Your task to perform on an android device: open app "Duolingo: language lessons" Image 0: 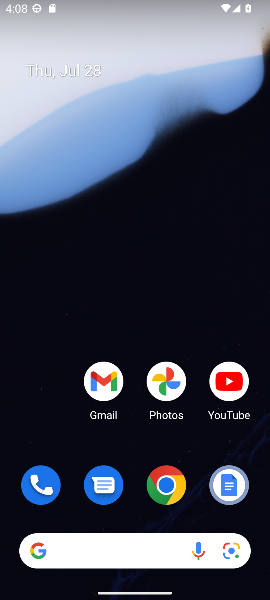
Step 0: drag from (144, 503) to (146, 153)
Your task to perform on an android device: open app "Duolingo: language lessons" Image 1: 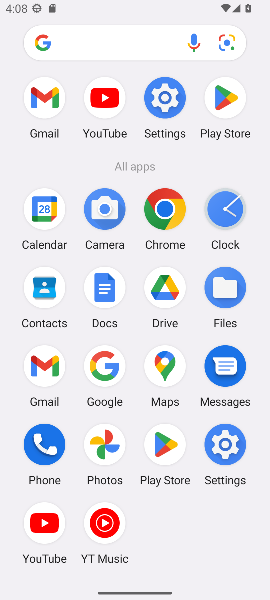
Step 1: click (169, 442)
Your task to perform on an android device: open app "Duolingo: language lessons" Image 2: 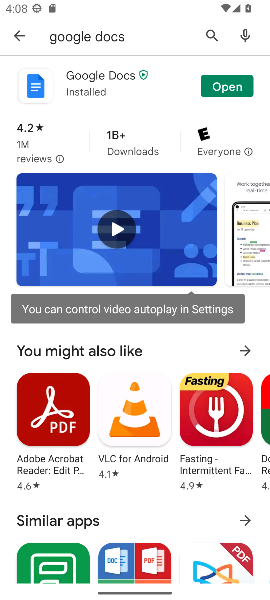
Step 2: click (15, 29)
Your task to perform on an android device: open app "Duolingo: language lessons" Image 3: 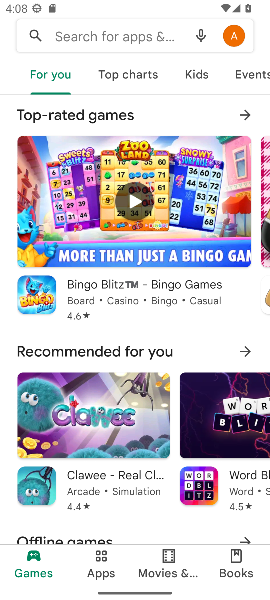
Step 3: click (87, 37)
Your task to perform on an android device: open app "Duolingo: language lessons" Image 4: 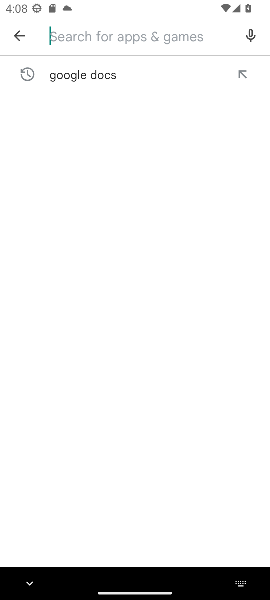
Step 4: type "Duolingo"
Your task to perform on an android device: open app "Duolingo: language lessons" Image 5: 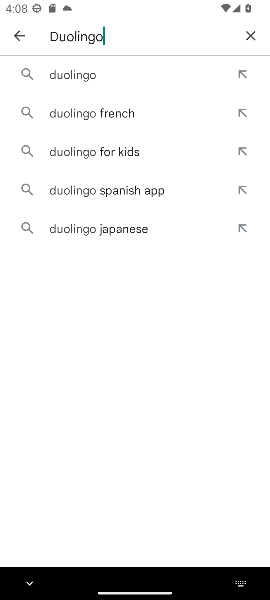
Step 5: click (85, 78)
Your task to perform on an android device: open app "Duolingo: language lessons" Image 6: 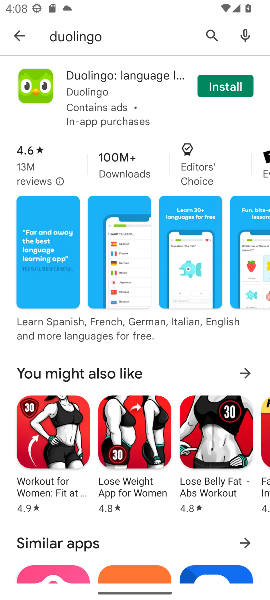
Step 6: click (218, 81)
Your task to perform on an android device: open app "Duolingo: language lessons" Image 7: 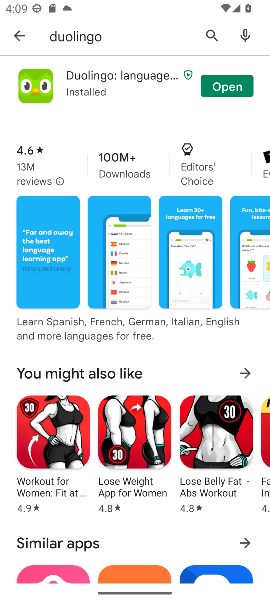
Step 7: click (224, 89)
Your task to perform on an android device: open app "Duolingo: language lessons" Image 8: 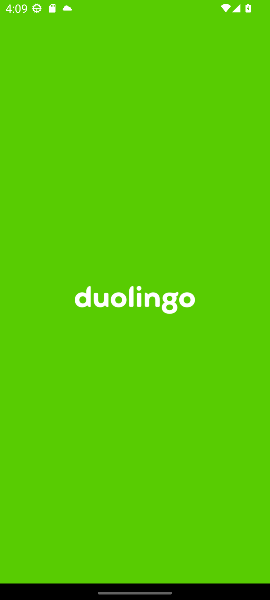
Step 8: task complete